Your task to perform on an android device: stop showing notifications on the lock screen Image 0: 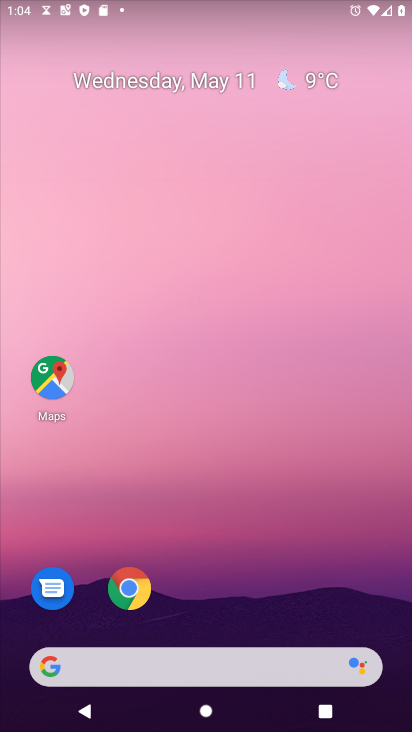
Step 0: drag from (336, 597) to (353, 5)
Your task to perform on an android device: stop showing notifications on the lock screen Image 1: 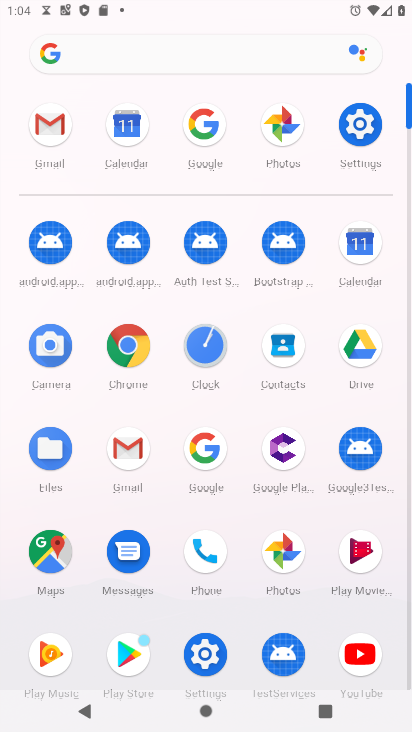
Step 1: click (359, 149)
Your task to perform on an android device: stop showing notifications on the lock screen Image 2: 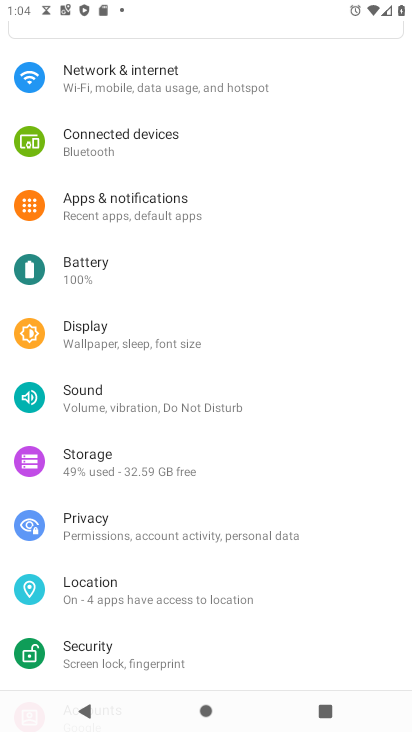
Step 2: click (146, 206)
Your task to perform on an android device: stop showing notifications on the lock screen Image 3: 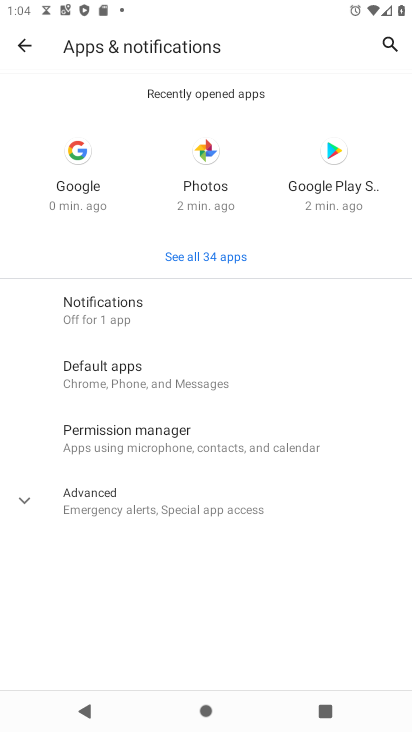
Step 3: click (100, 300)
Your task to perform on an android device: stop showing notifications on the lock screen Image 4: 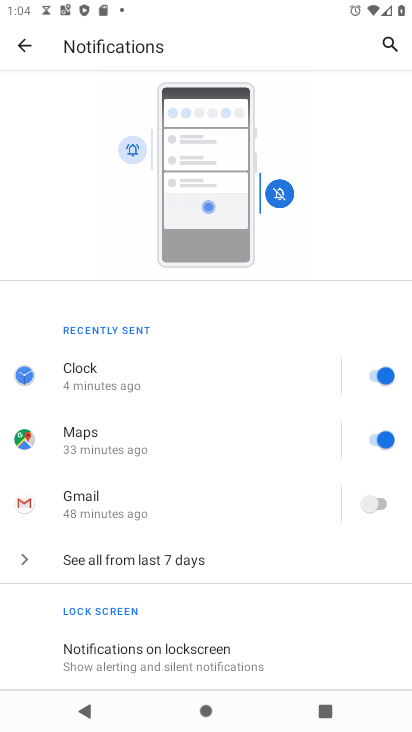
Step 4: click (110, 663)
Your task to perform on an android device: stop showing notifications on the lock screen Image 5: 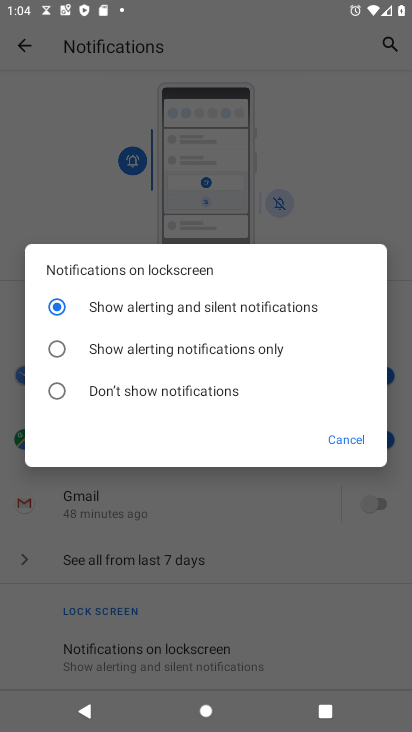
Step 5: click (53, 387)
Your task to perform on an android device: stop showing notifications on the lock screen Image 6: 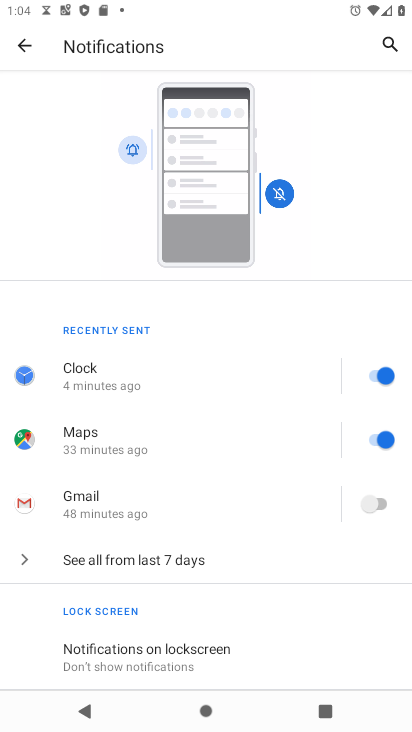
Step 6: task complete